Your task to perform on an android device: change your default location settings in chrome Image 0: 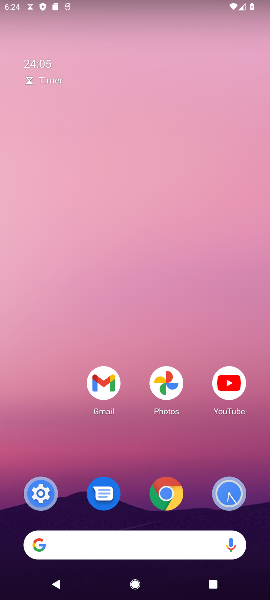
Step 0: drag from (130, 434) to (175, 35)
Your task to perform on an android device: change your default location settings in chrome Image 1: 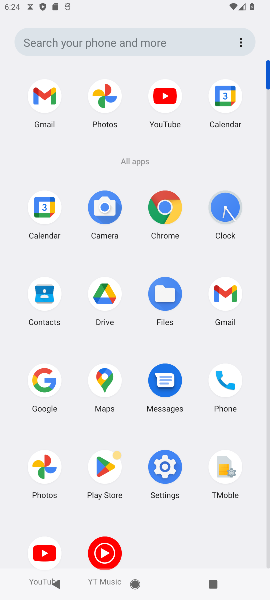
Step 1: click (163, 208)
Your task to perform on an android device: change your default location settings in chrome Image 2: 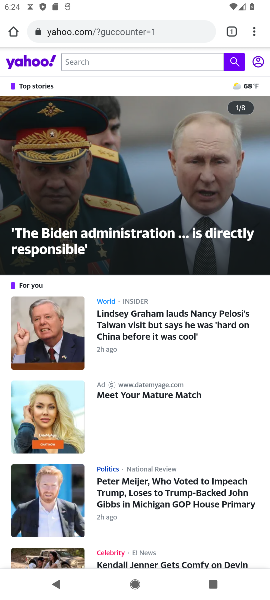
Step 2: click (255, 32)
Your task to perform on an android device: change your default location settings in chrome Image 3: 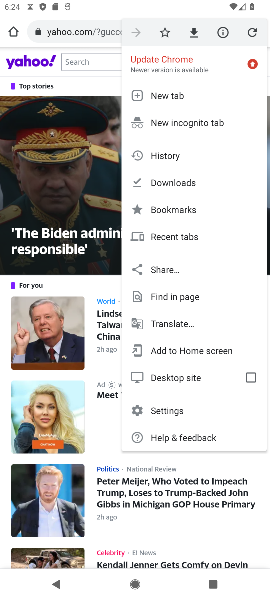
Step 3: click (170, 410)
Your task to perform on an android device: change your default location settings in chrome Image 4: 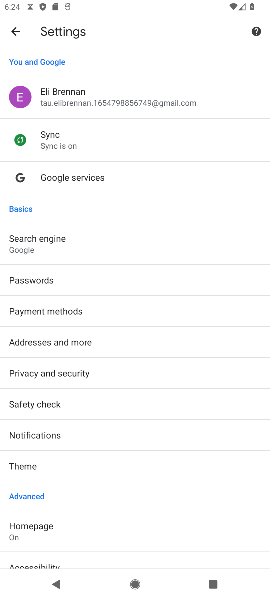
Step 4: drag from (84, 526) to (89, 259)
Your task to perform on an android device: change your default location settings in chrome Image 5: 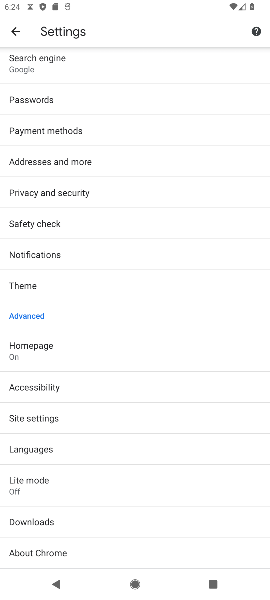
Step 5: click (51, 419)
Your task to perform on an android device: change your default location settings in chrome Image 6: 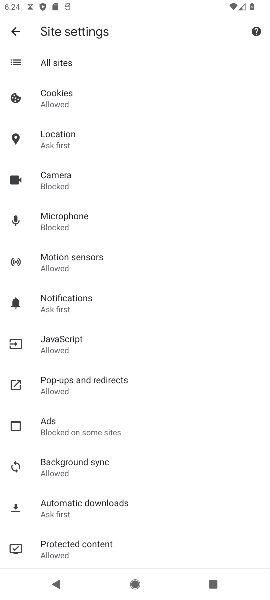
Step 6: click (52, 140)
Your task to perform on an android device: change your default location settings in chrome Image 7: 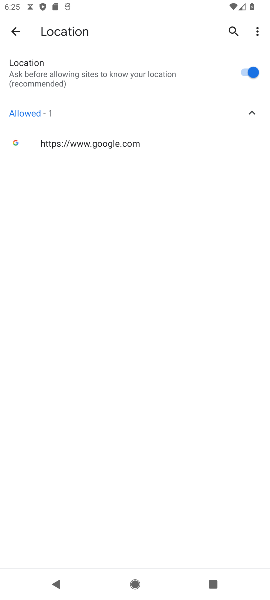
Step 7: click (244, 72)
Your task to perform on an android device: change your default location settings in chrome Image 8: 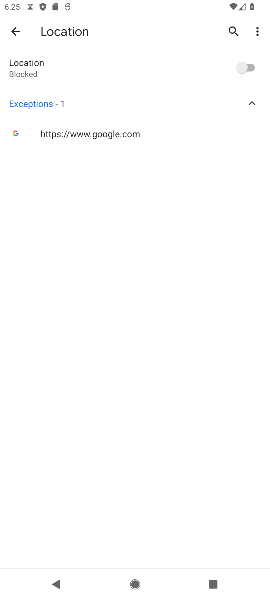
Step 8: task complete